Your task to perform on an android device: stop showing notifications on the lock screen Image 0: 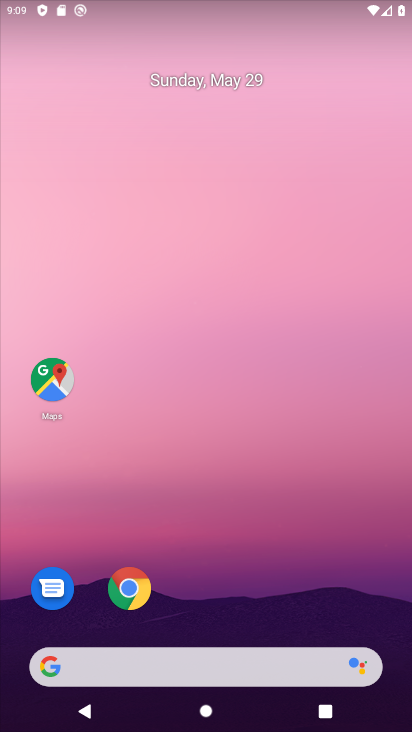
Step 0: click (397, 275)
Your task to perform on an android device: stop showing notifications on the lock screen Image 1: 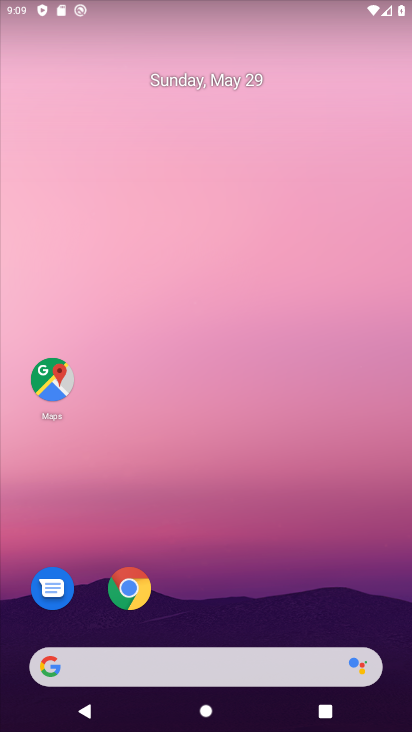
Step 1: drag from (4, 669) to (272, 131)
Your task to perform on an android device: stop showing notifications on the lock screen Image 2: 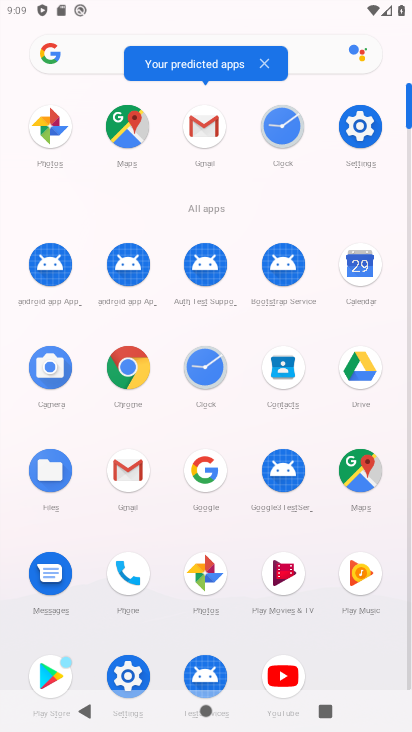
Step 2: click (365, 119)
Your task to perform on an android device: stop showing notifications on the lock screen Image 3: 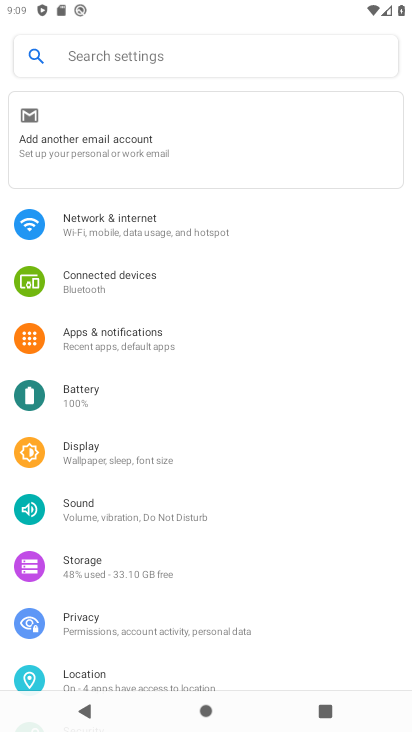
Step 3: click (117, 347)
Your task to perform on an android device: stop showing notifications on the lock screen Image 4: 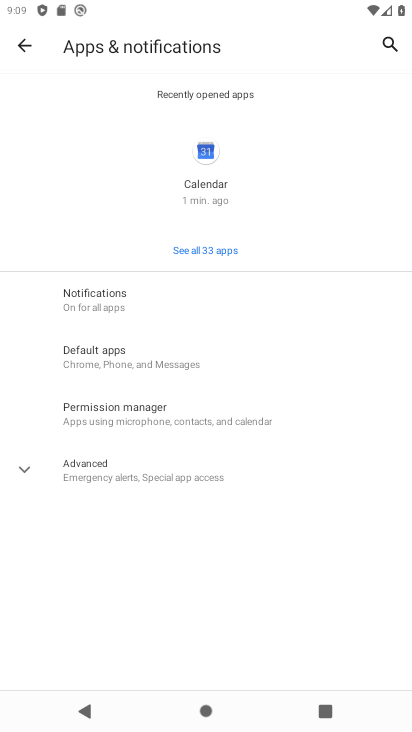
Step 4: click (130, 295)
Your task to perform on an android device: stop showing notifications on the lock screen Image 5: 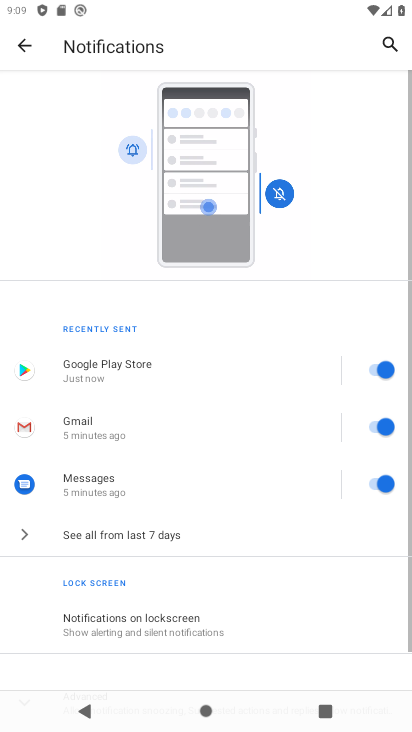
Step 5: click (129, 523)
Your task to perform on an android device: stop showing notifications on the lock screen Image 6: 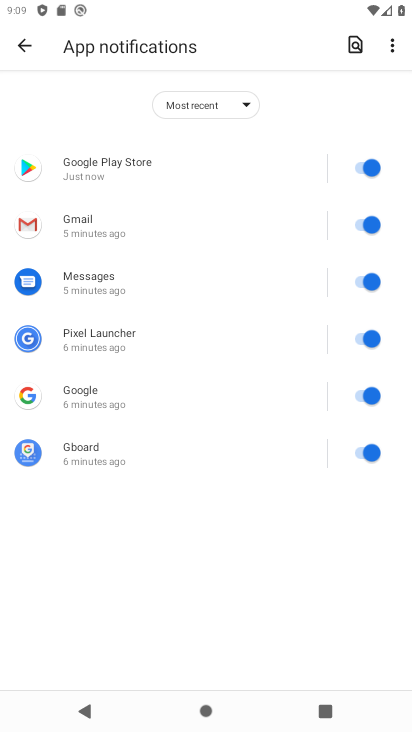
Step 6: press back button
Your task to perform on an android device: stop showing notifications on the lock screen Image 7: 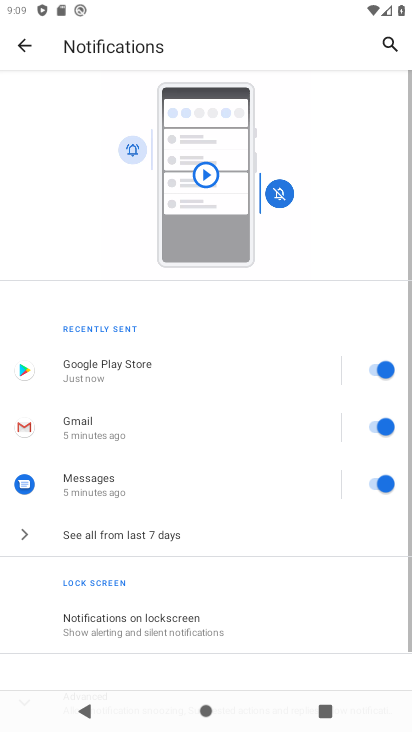
Step 7: click (174, 619)
Your task to perform on an android device: stop showing notifications on the lock screen Image 8: 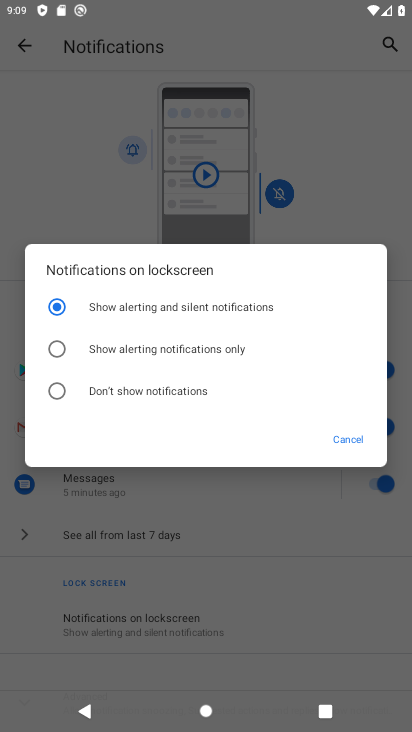
Step 8: click (55, 398)
Your task to perform on an android device: stop showing notifications on the lock screen Image 9: 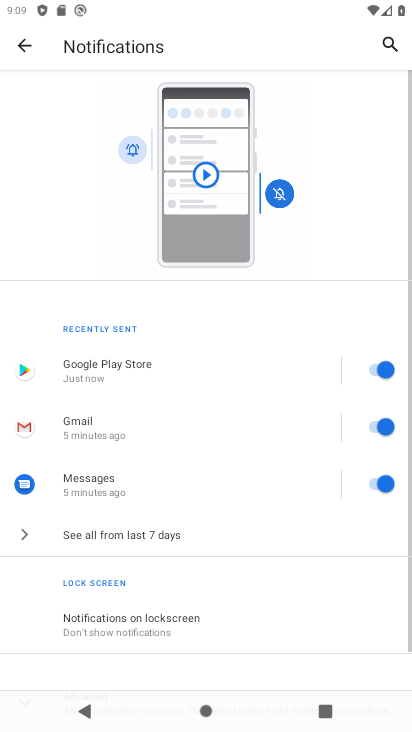
Step 9: task complete